Your task to perform on an android device: change the clock display to show seconds Image 0: 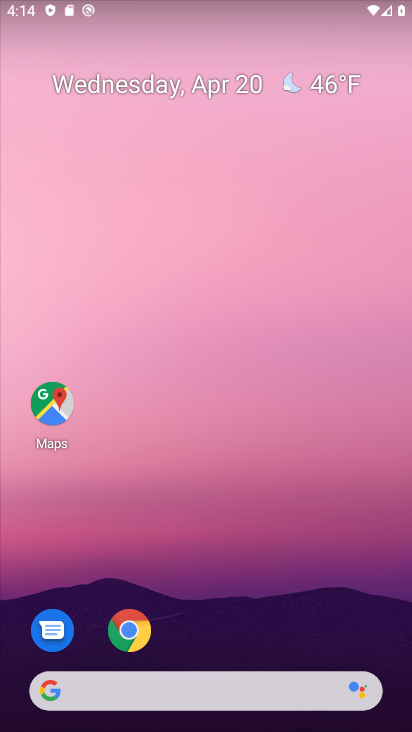
Step 0: drag from (272, 561) to (272, 241)
Your task to perform on an android device: change the clock display to show seconds Image 1: 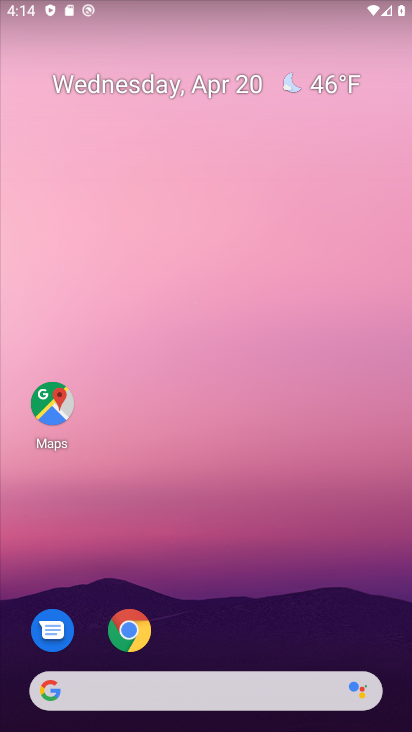
Step 1: drag from (188, 620) to (261, 122)
Your task to perform on an android device: change the clock display to show seconds Image 2: 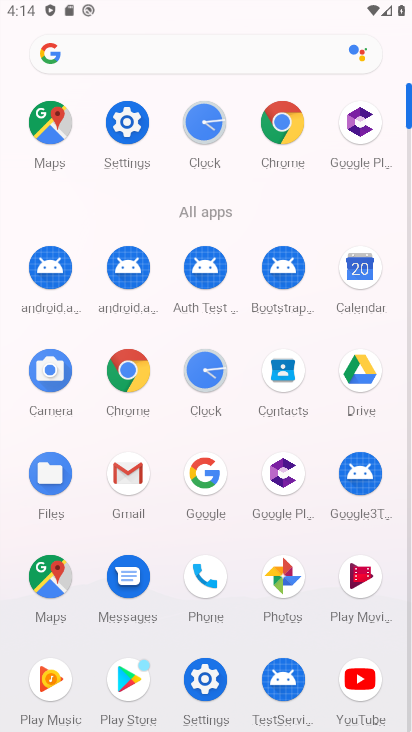
Step 2: click (199, 388)
Your task to perform on an android device: change the clock display to show seconds Image 3: 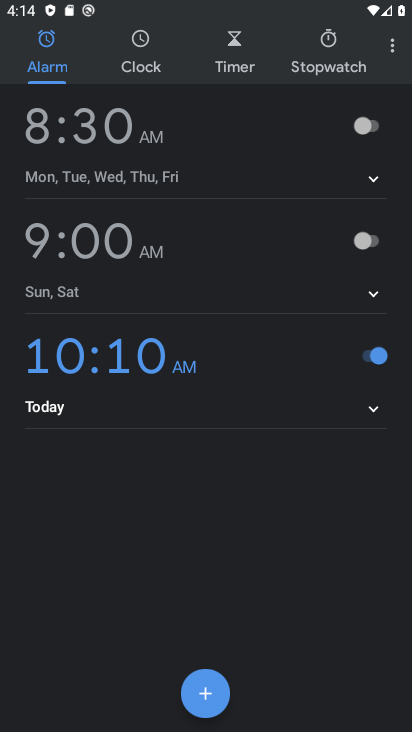
Step 3: click (396, 44)
Your task to perform on an android device: change the clock display to show seconds Image 4: 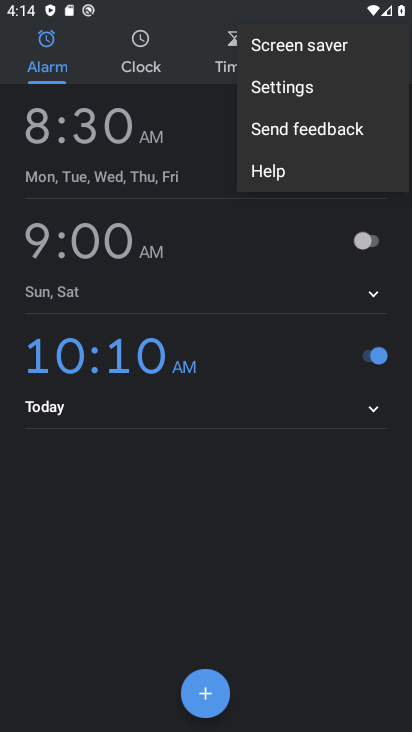
Step 4: click (294, 90)
Your task to perform on an android device: change the clock display to show seconds Image 5: 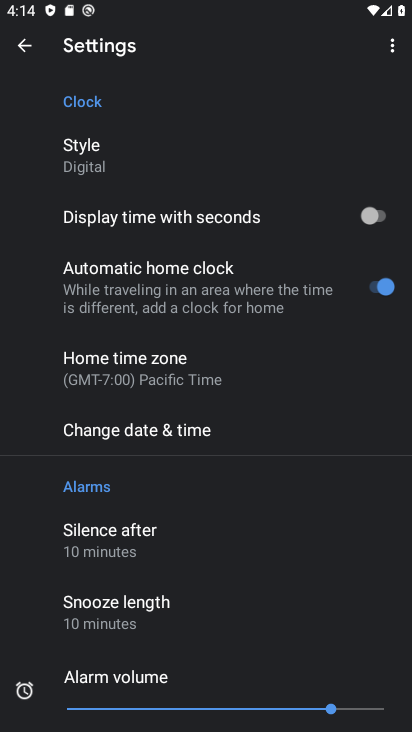
Step 5: click (383, 212)
Your task to perform on an android device: change the clock display to show seconds Image 6: 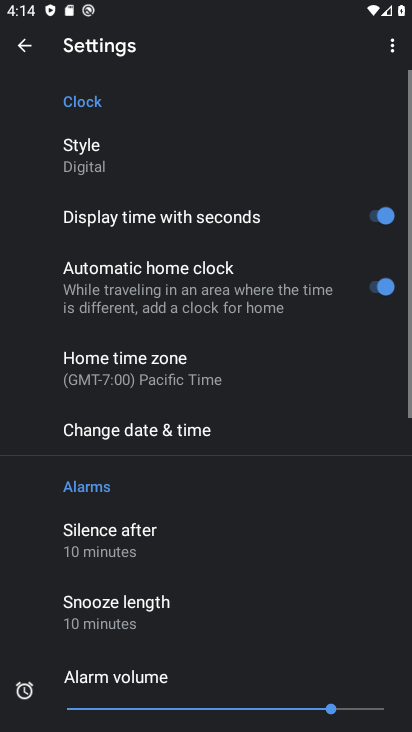
Step 6: task complete